Your task to perform on an android device: turn notification dots off Image 0: 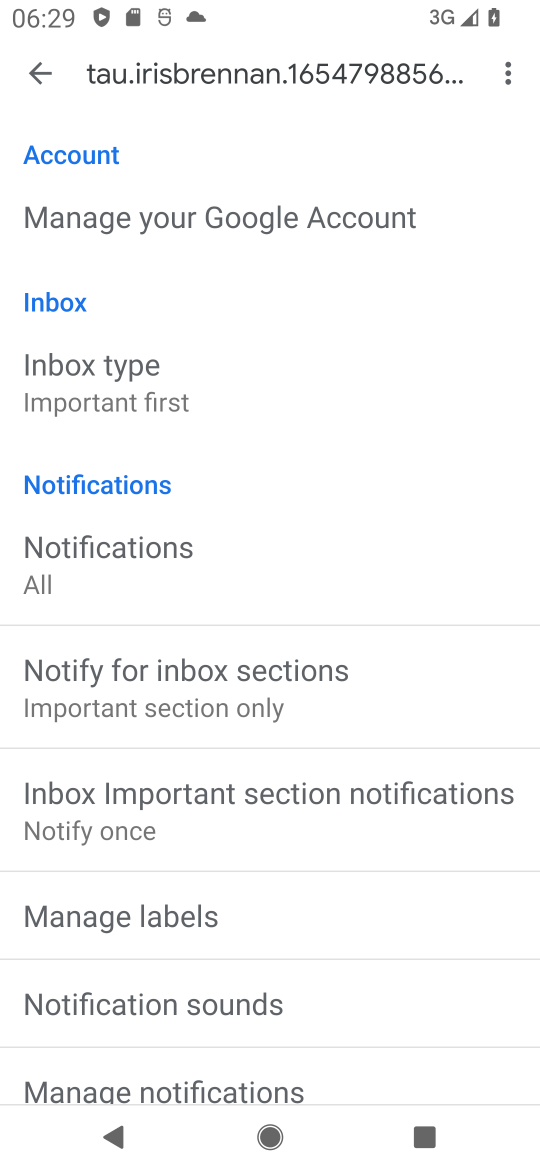
Step 0: press home button
Your task to perform on an android device: turn notification dots off Image 1: 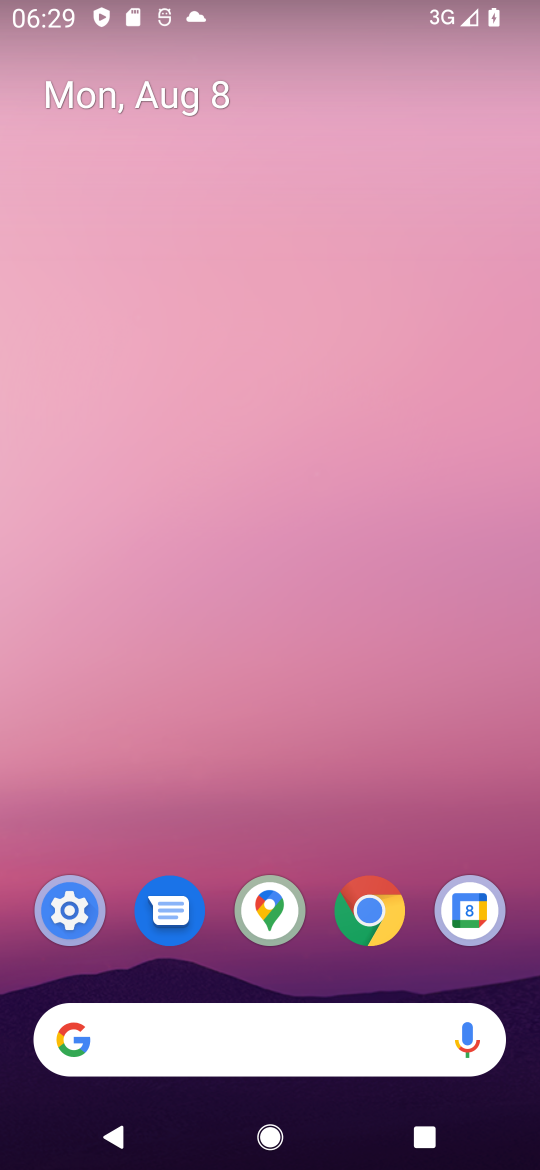
Step 1: click (71, 912)
Your task to perform on an android device: turn notification dots off Image 2: 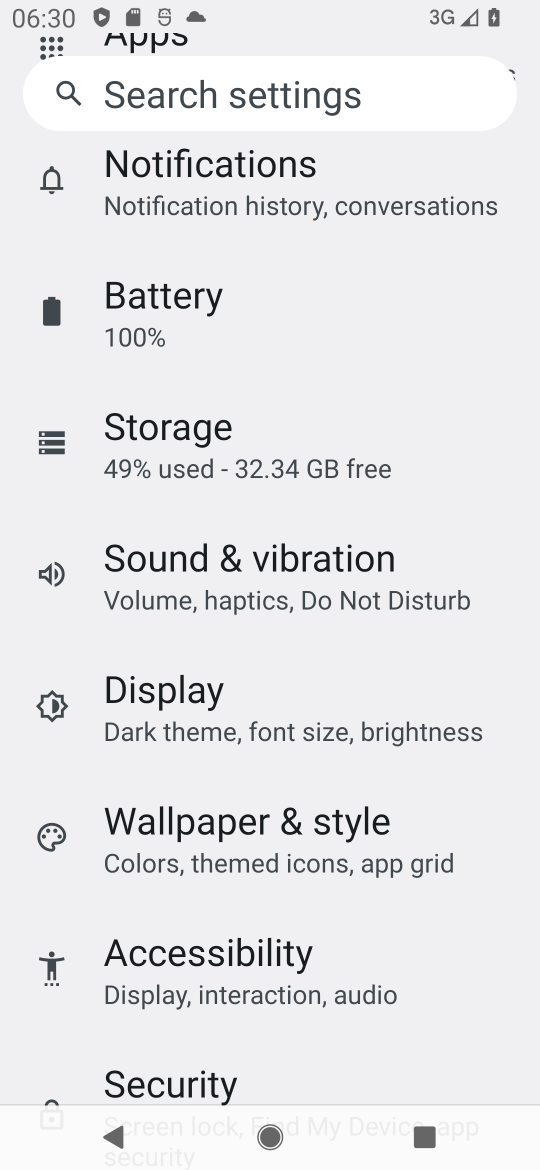
Step 2: drag from (230, 376) to (237, 574)
Your task to perform on an android device: turn notification dots off Image 3: 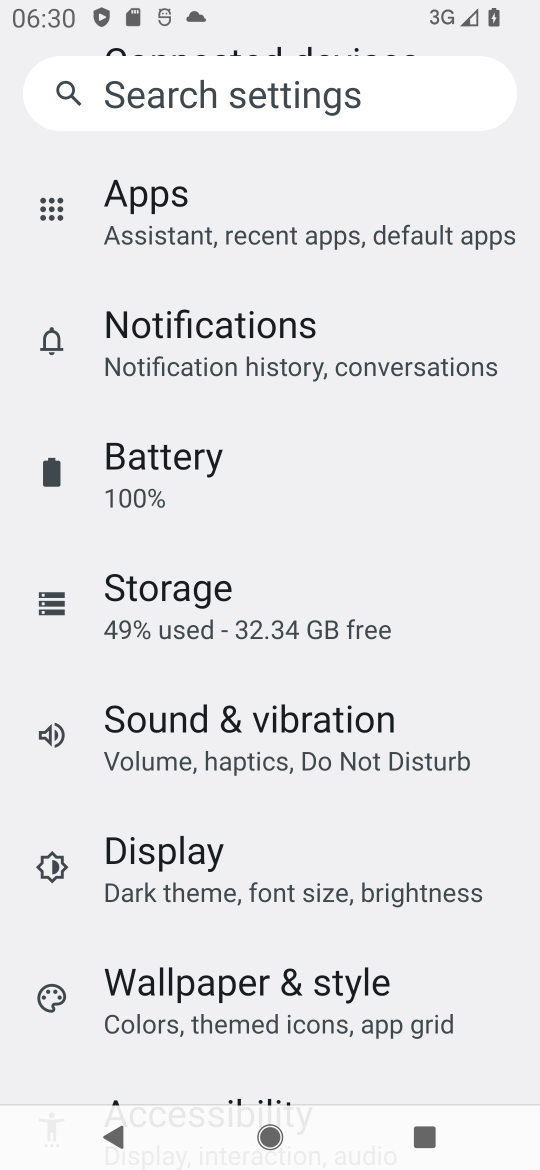
Step 3: click (229, 370)
Your task to perform on an android device: turn notification dots off Image 4: 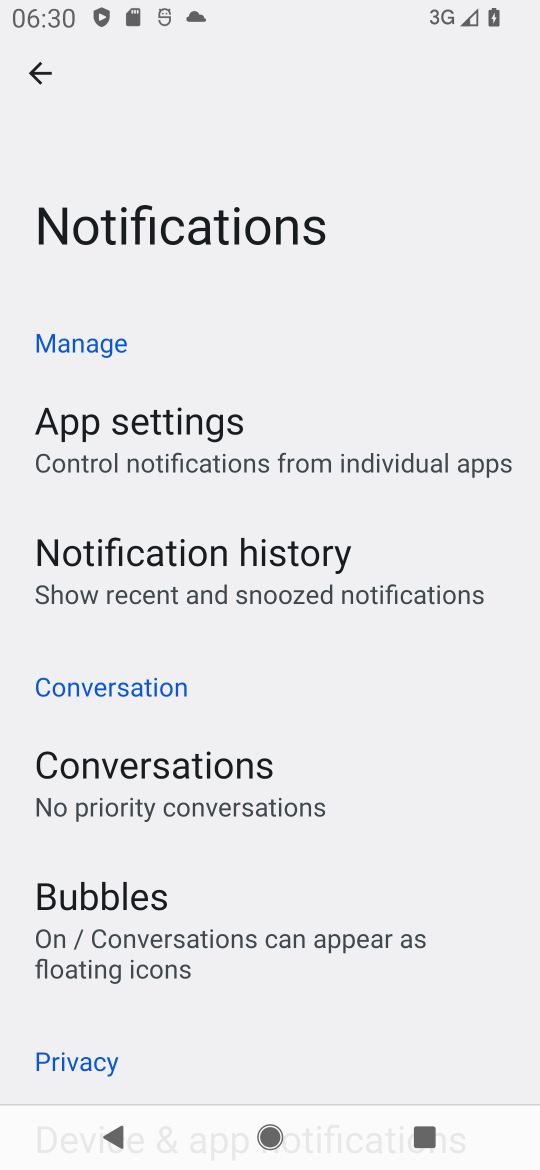
Step 4: drag from (143, 863) to (216, 685)
Your task to perform on an android device: turn notification dots off Image 5: 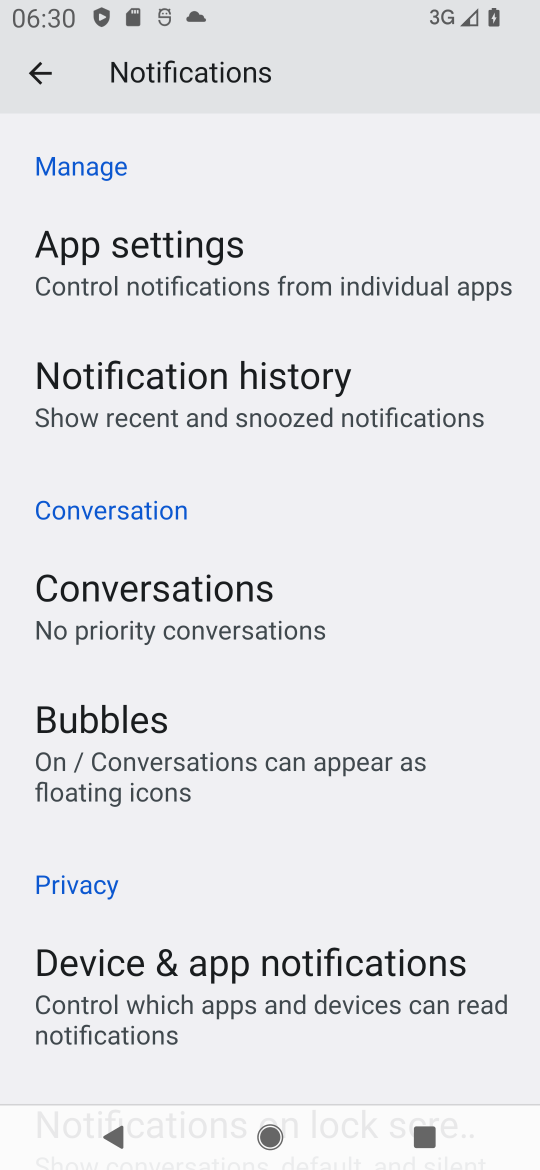
Step 5: drag from (181, 904) to (326, 688)
Your task to perform on an android device: turn notification dots off Image 6: 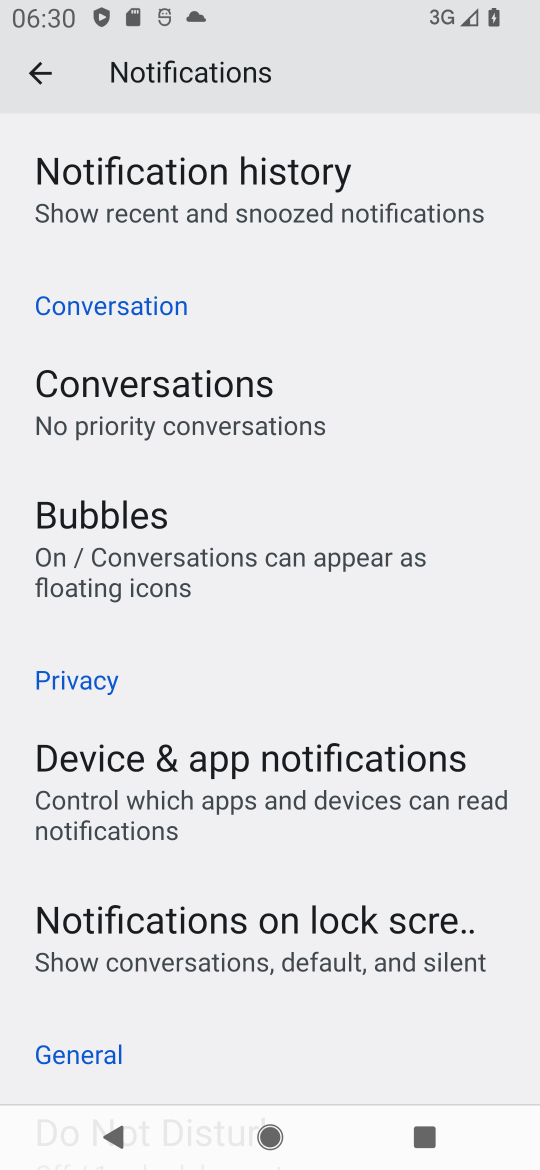
Step 6: drag from (242, 884) to (361, 664)
Your task to perform on an android device: turn notification dots off Image 7: 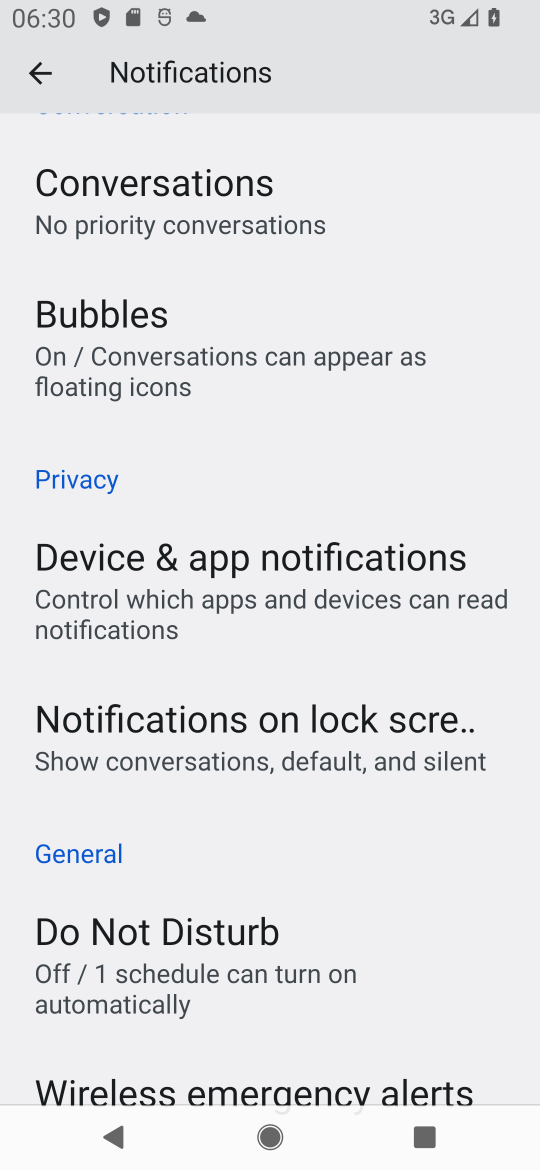
Step 7: drag from (210, 1021) to (336, 840)
Your task to perform on an android device: turn notification dots off Image 8: 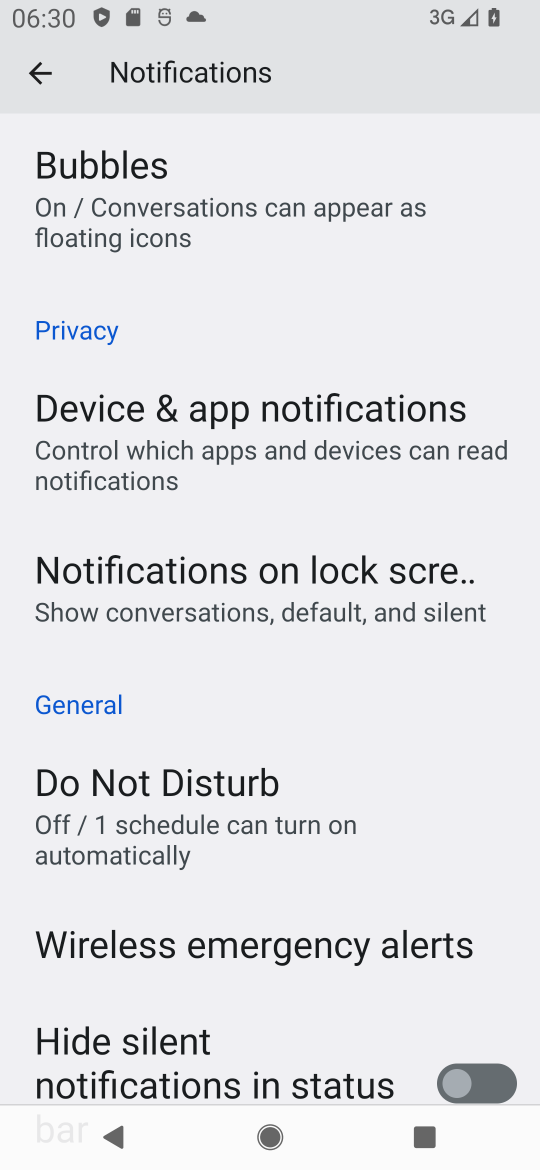
Step 8: drag from (232, 998) to (370, 806)
Your task to perform on an android device: turn notification dots off Image 9: 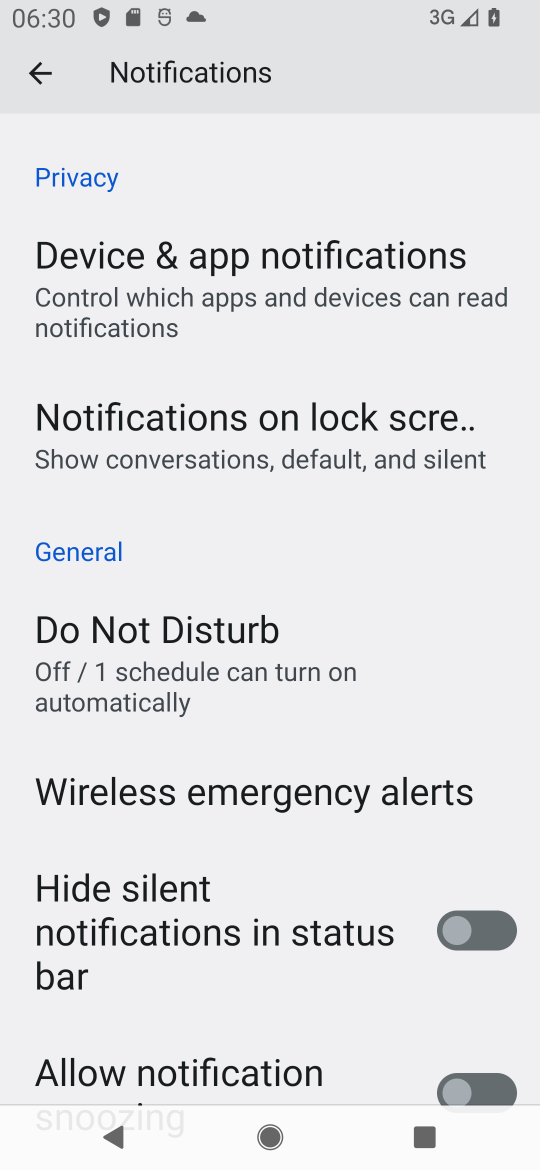
Step 9: drag from (265, 983) to (419, 792)
Your task to perform on an android device: turn notification dots off Image 10: 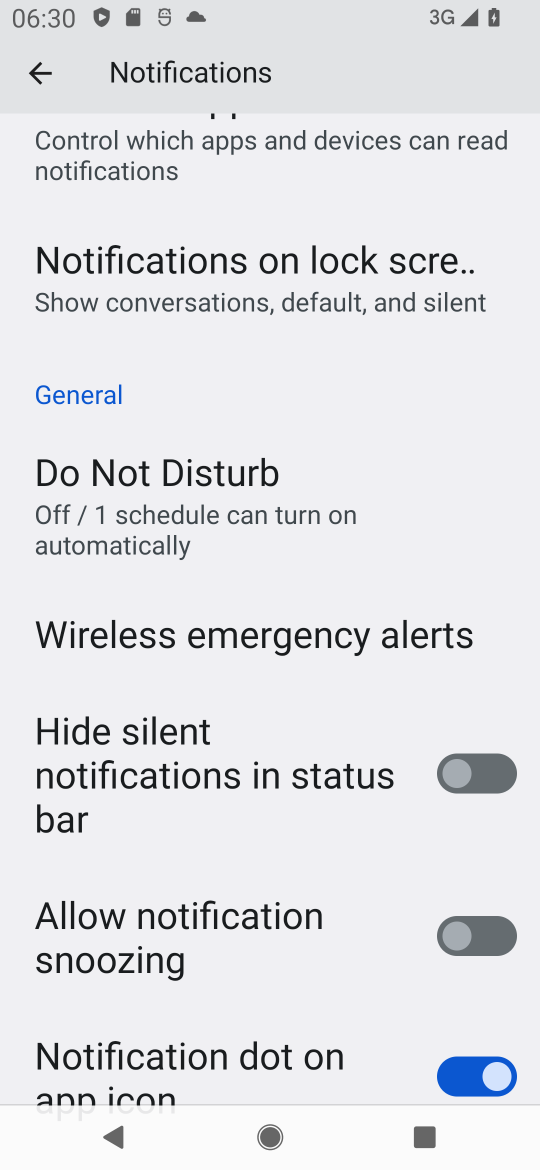
Step 10: drag from (252, 976) to (393, 801)
Your task to perform on an android device: turn notification dots off Image 11: 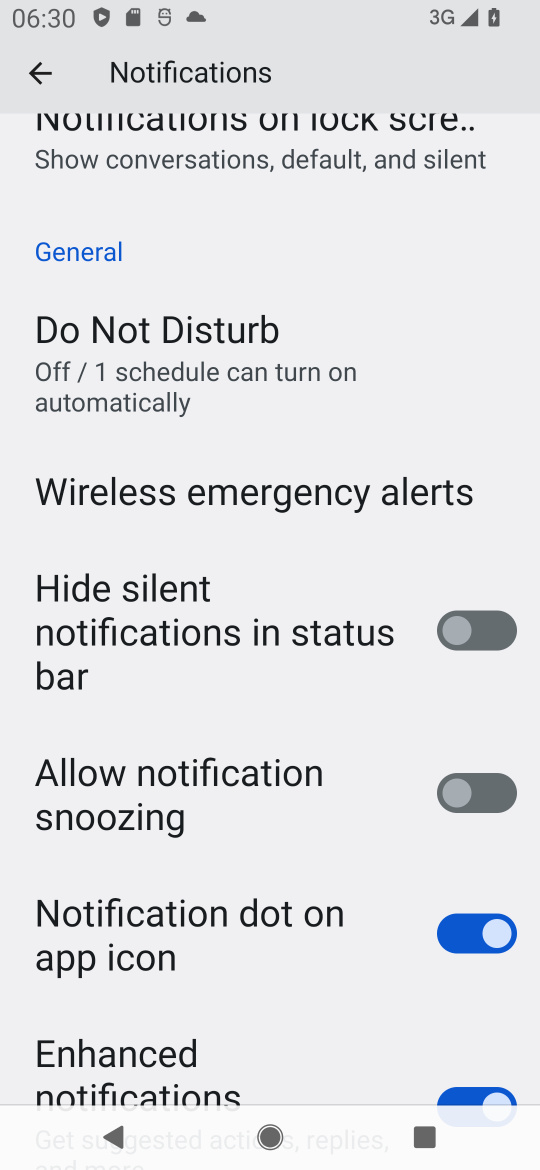
Step 11: click (445, 936)
Your task to perform on an android device: turn notification dots off Image 12: 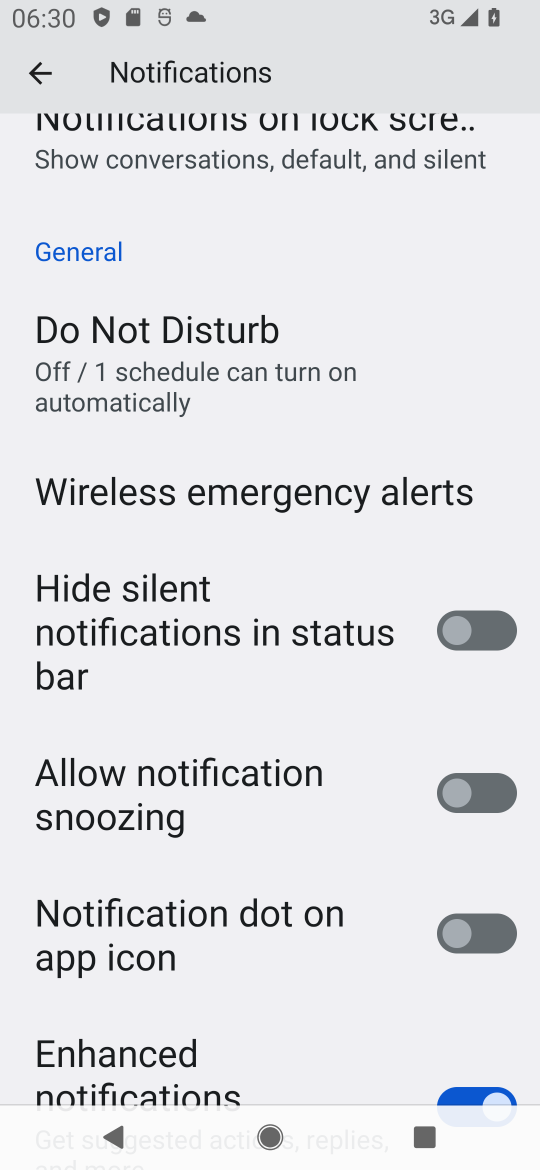
Step 12: task complete